Your task to perform on an android device: turn on priority inbox in the gmail app Image 0: 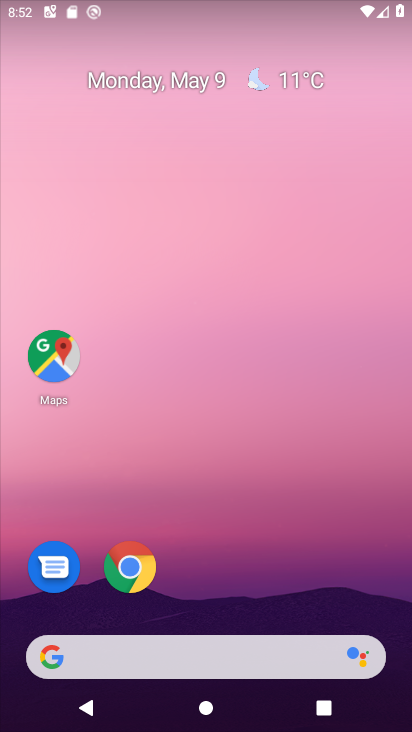
Step 0: drag from (311, 543) to (330, 22)
Your task to perform on an android device: turn on priority inbox in the gmail app Image 1: 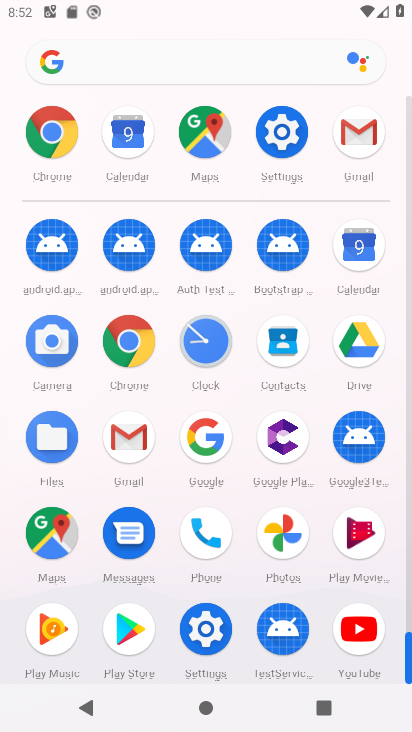
Step 1: click (354, 137)
Your task to perform on an android device: turn on priority inbox in the gmail app Image 2: 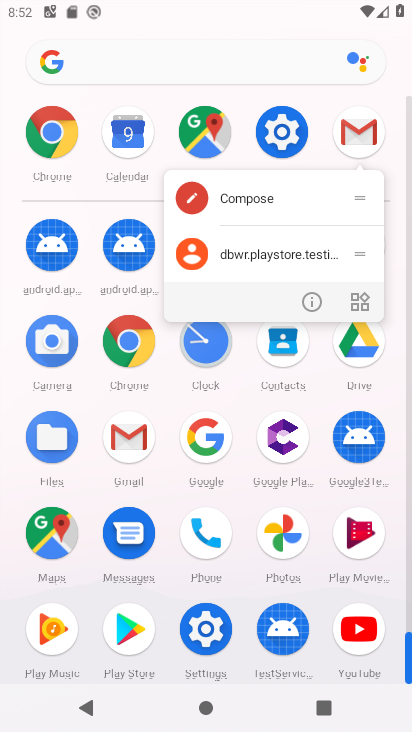
Step 2: click (358, 131)
Your task to perform on an android device: turn on priority inbox in the gmail app Image 3: 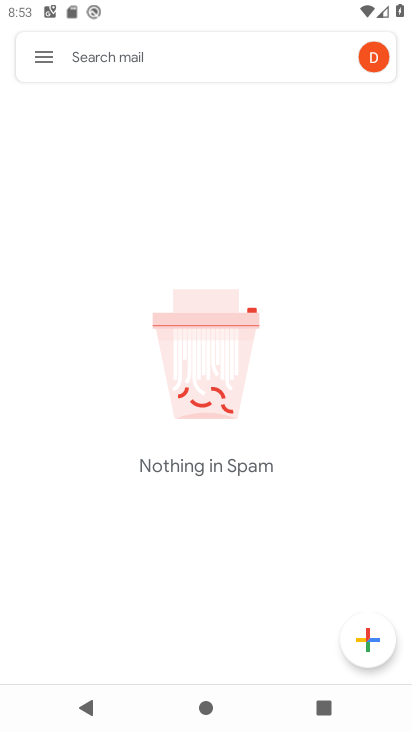
Step 3: click (44, 52)
Your task to perform on an android device: turn on priority inbox in the gmail app Image 4: 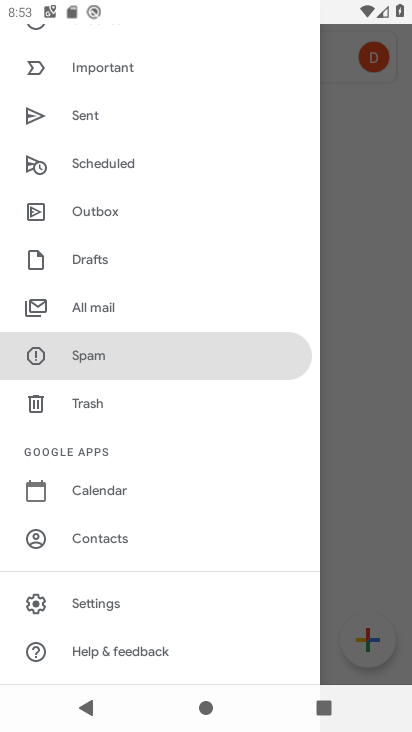
Step 4: click (87, 600)
Your task to perform on an android device: turn on priority inbox in the gmail app Image 5: 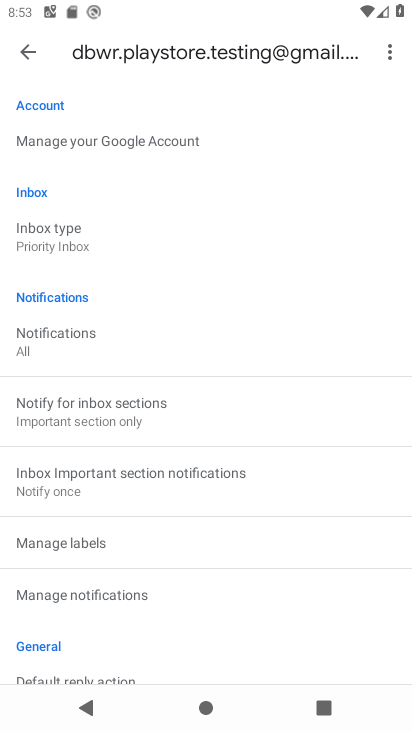
Step 5: task complete